Your task to perform on an android device: open app "ColorNote Notepad Notes" (install if not already installed) and go to login screen Image 0: 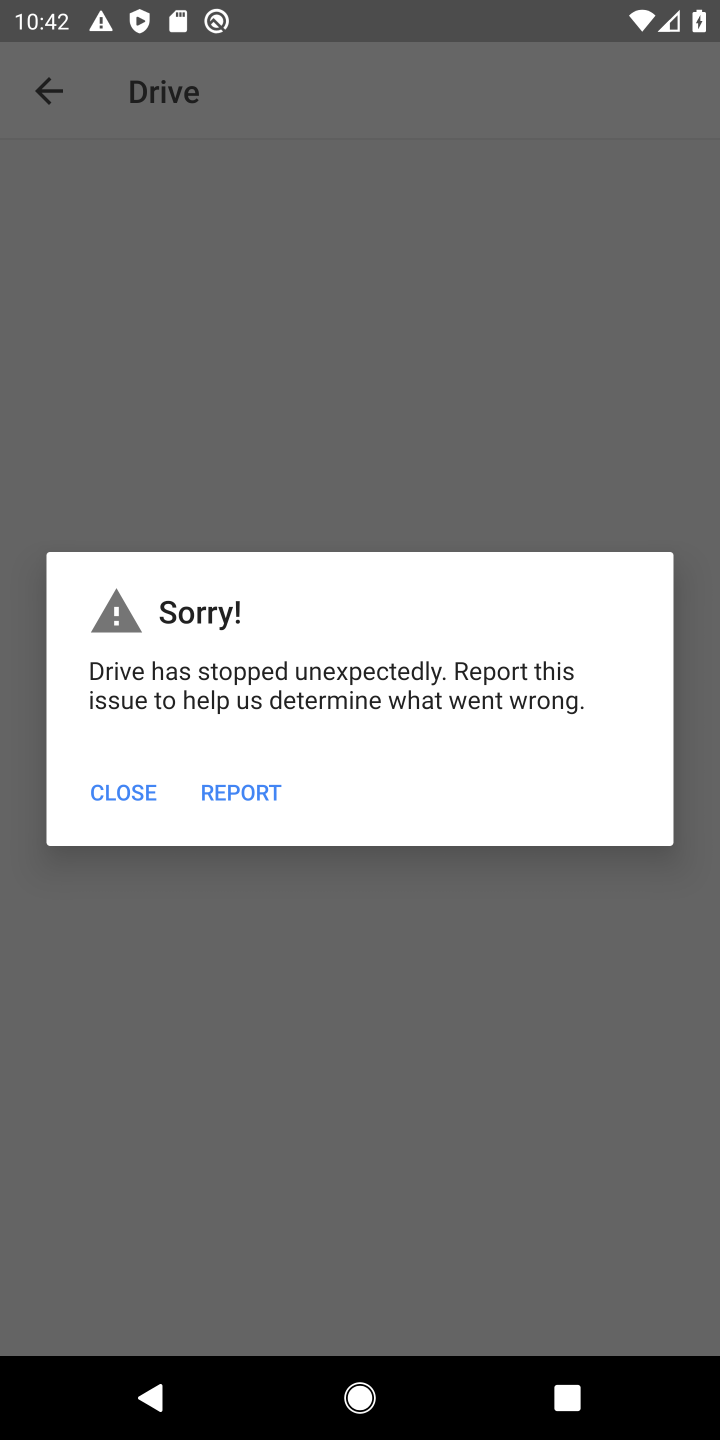
Step 0: press home button
Your task to perform on an android device: open app "ColorNote Notepad Notes" (install if not already installed) and go to login screen Image 1: 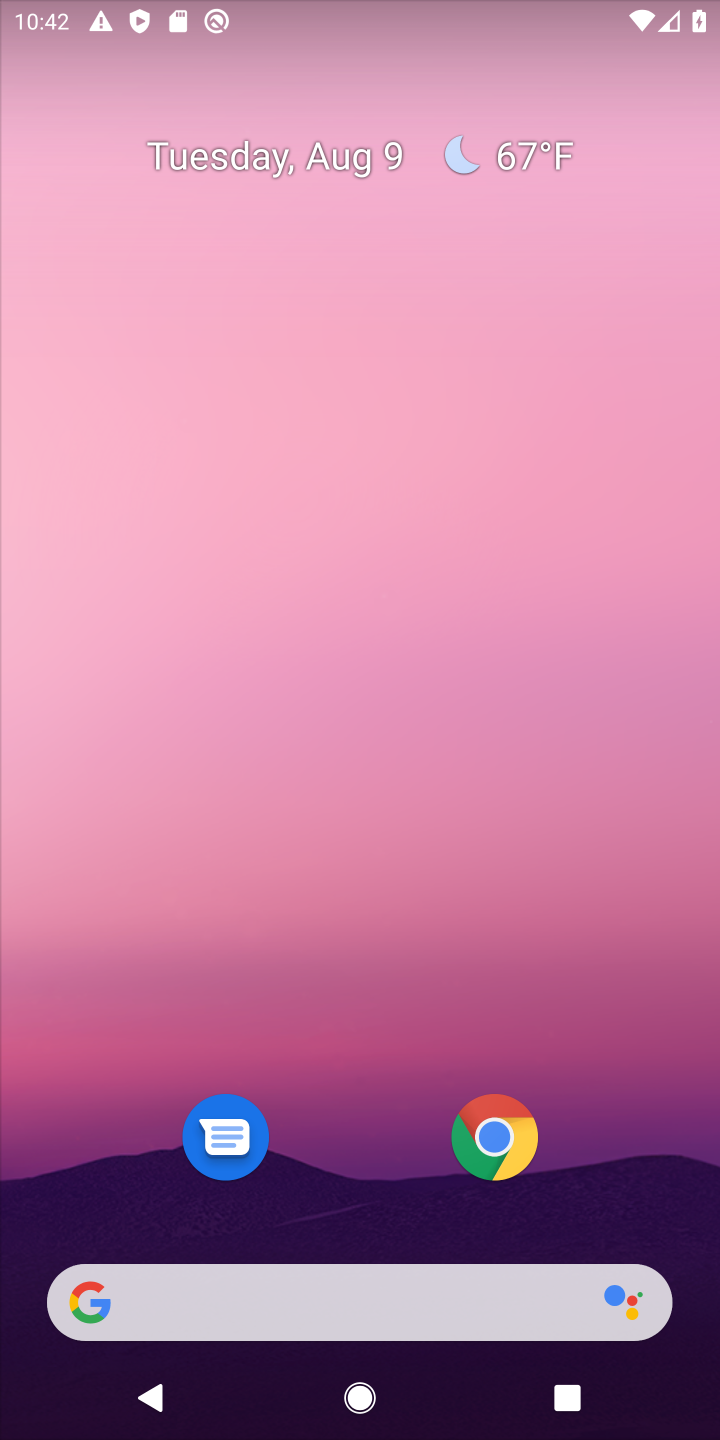
Step 1: drag from (654, 1225) to (421, 48)
Your task to perform on an android device: open app "ColorNote Notepad Notes" (install if not already installed) and go to login screen Image 2: 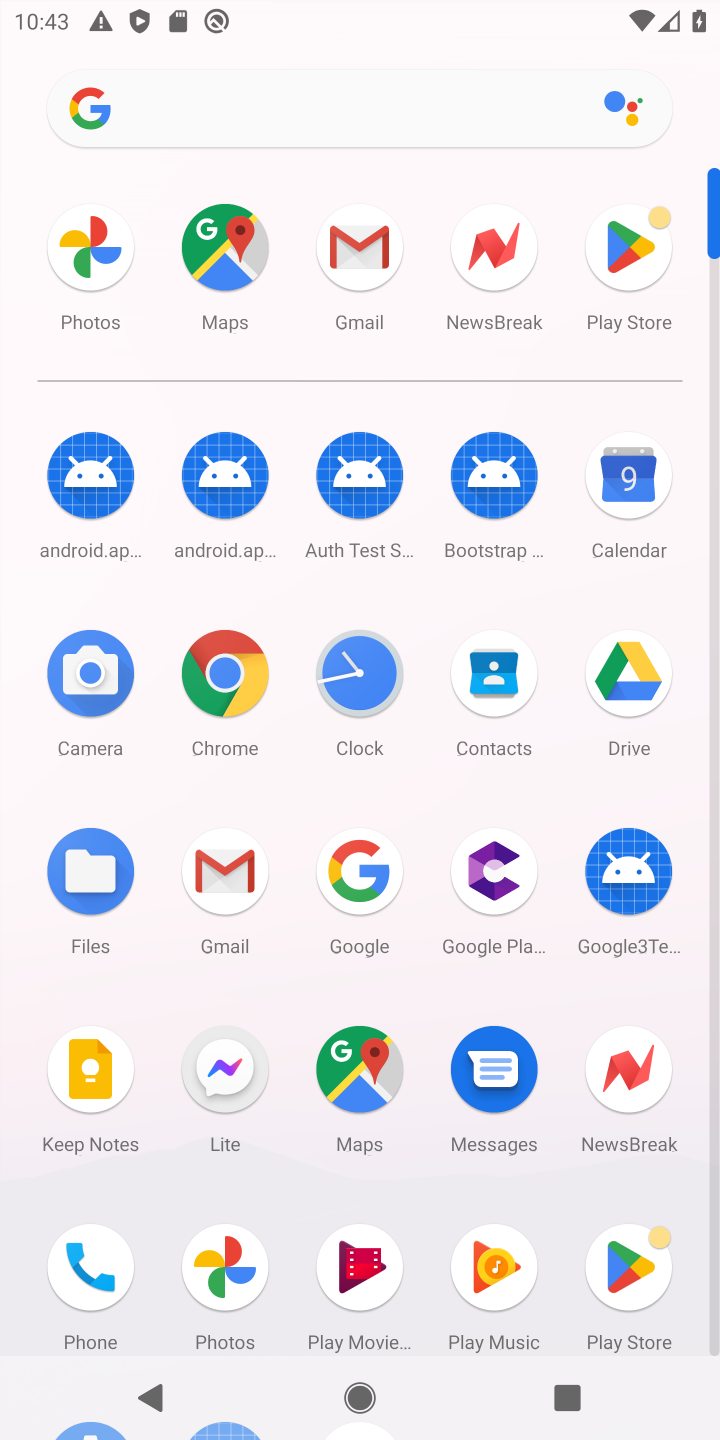
Step 2: click (621, 269)
Your task to perform on an android device: open app "ColorNote Notepad Notes" (install if not already installed) and go to login screen Image 3: 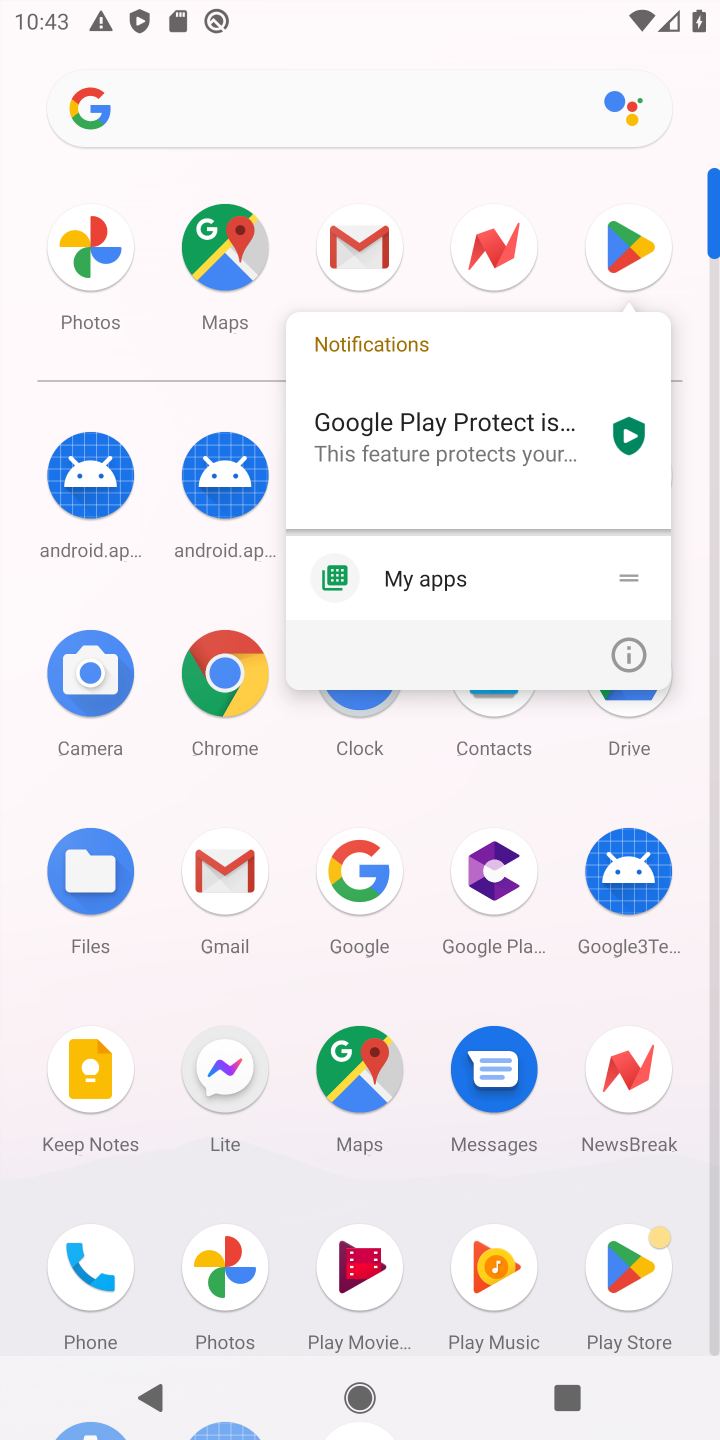
Step 3: click (623, 271)
Your task to perform on an android device: open app "ColorNote Notepad Notes" (install if not already installed) and go to login screen Image 4: 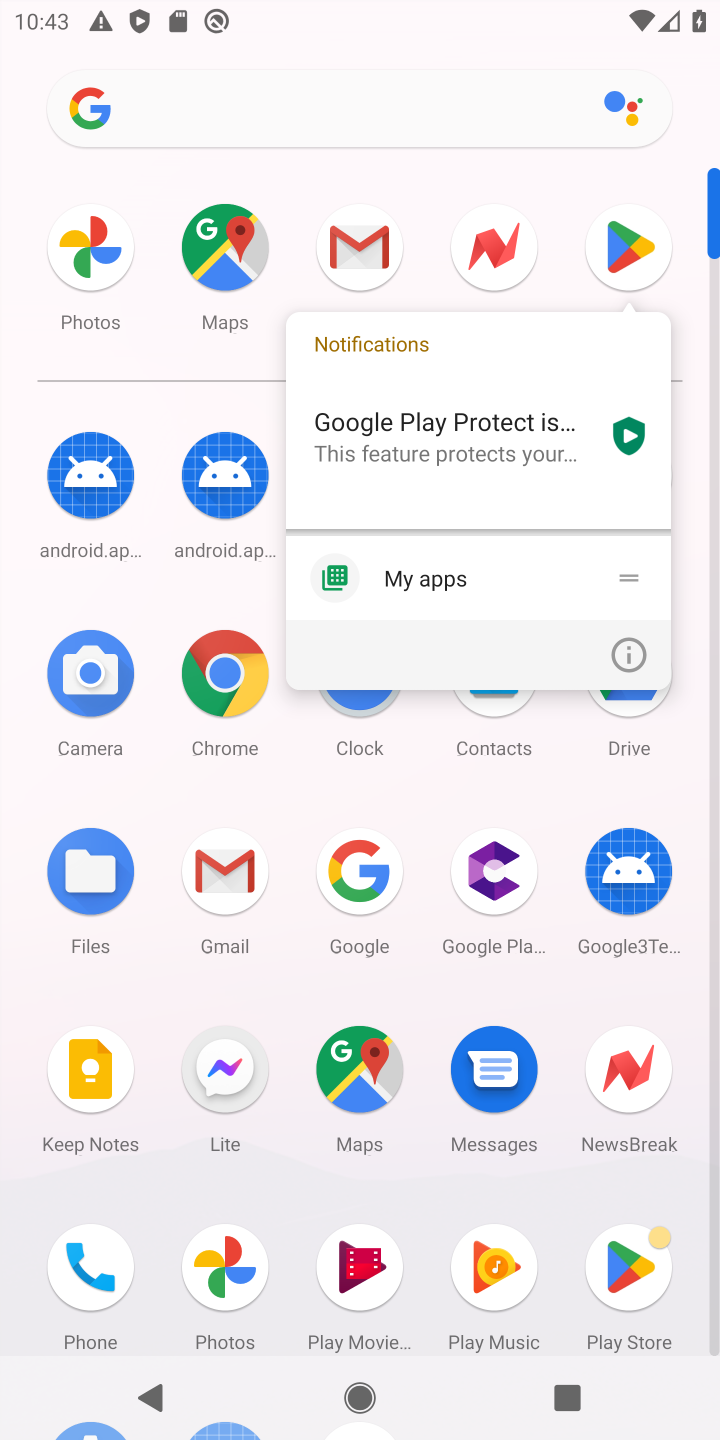
Step 4: click (623, 272)
Your task to perform on an android device: open app "ColorNote Notepad Notes" (install if not already installed) and go to login screen Image 5: 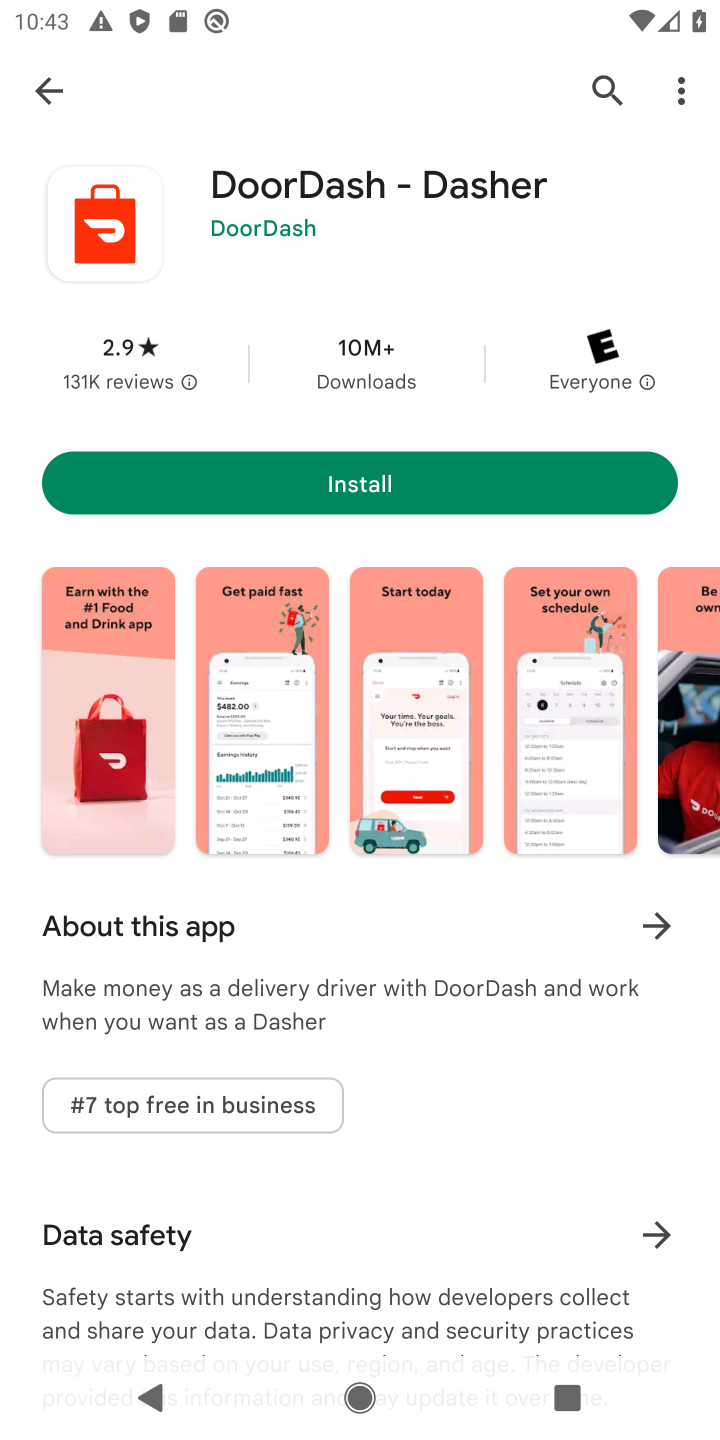
Step 5: press back button
Your task to perform on an android device: open app "ColorNote Notepad Notes" (install if not already installed) and go to login screen Image 6: 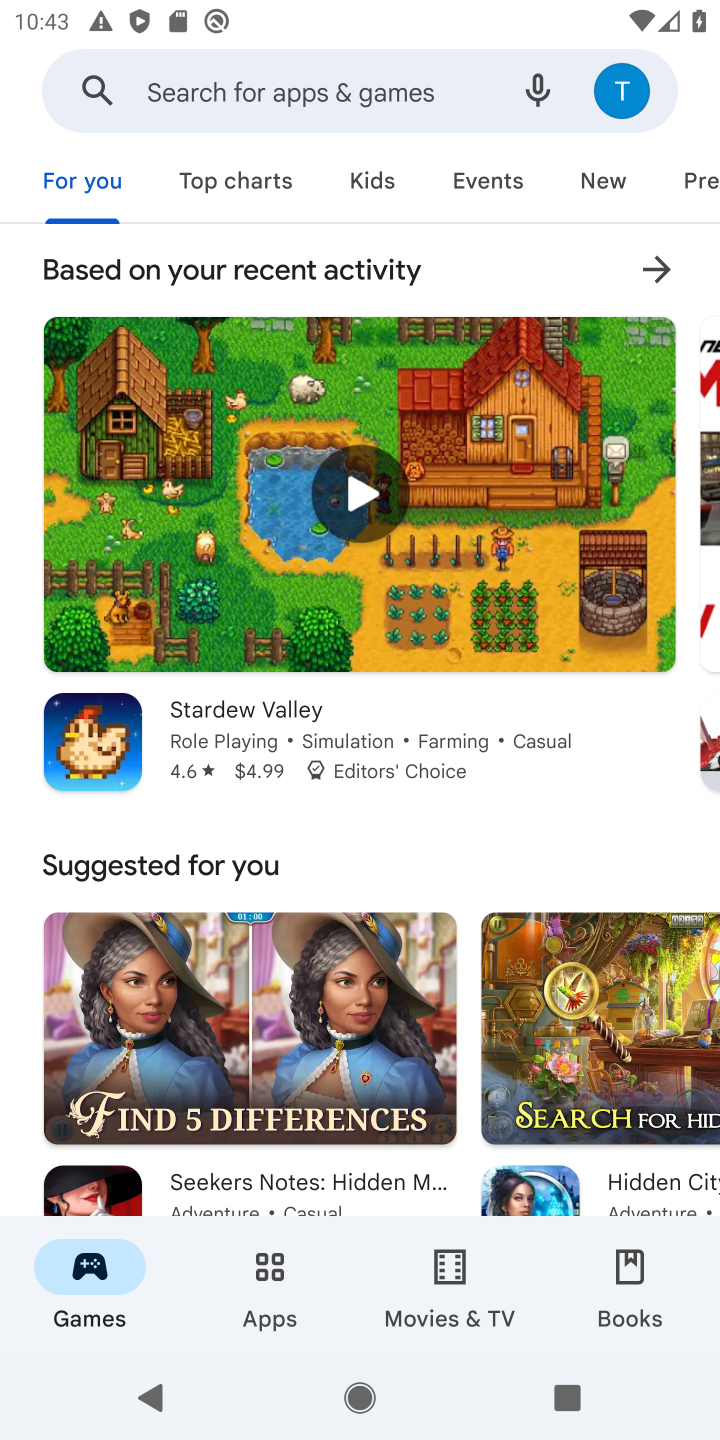
Step 6: click (244, 88)
Your task to perform on an android device: open app "ColorNote Notepad Notes" (install if not already installed) and go to login screen Image 7: 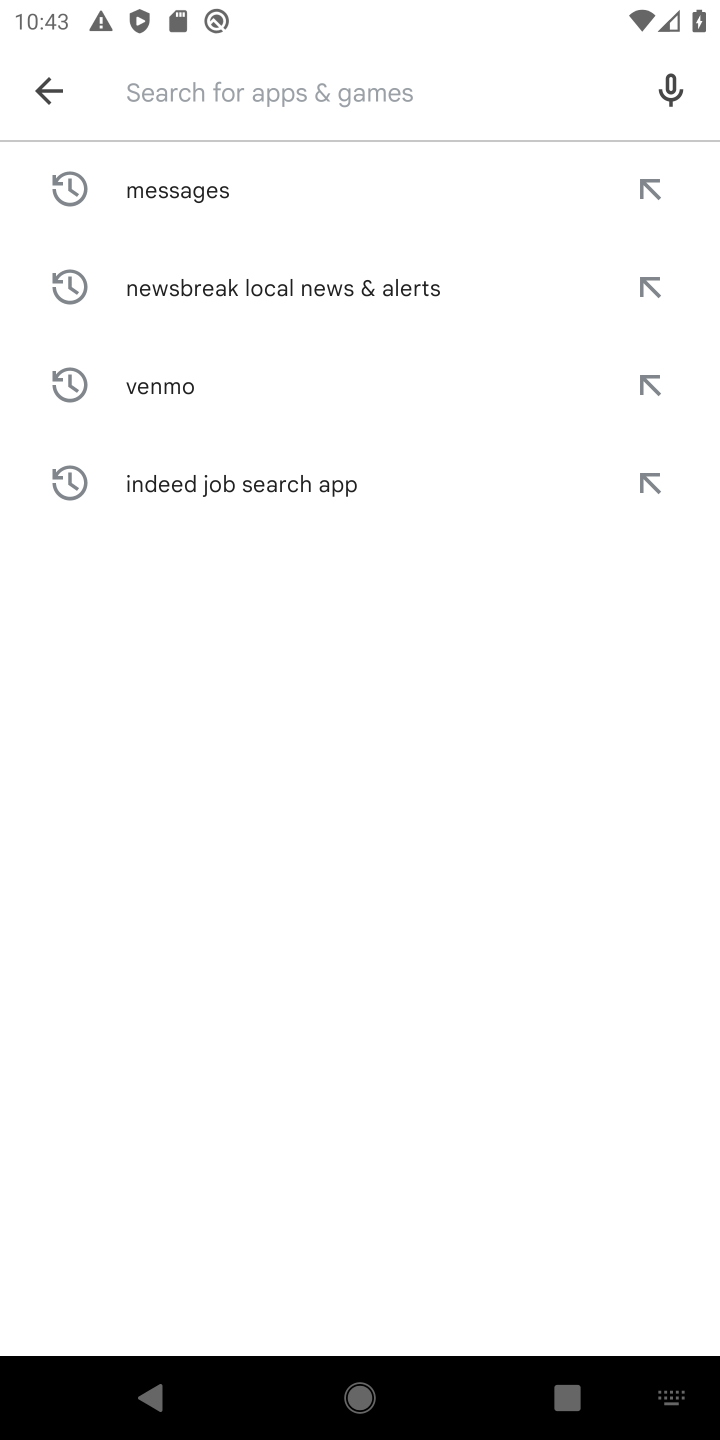
Step 7: type "ColorNote Notepad Notes"
Your task to perform on an android device: open app "ColorNote Notepad Notes" (install if not already installed) and go to login screen Image 8: 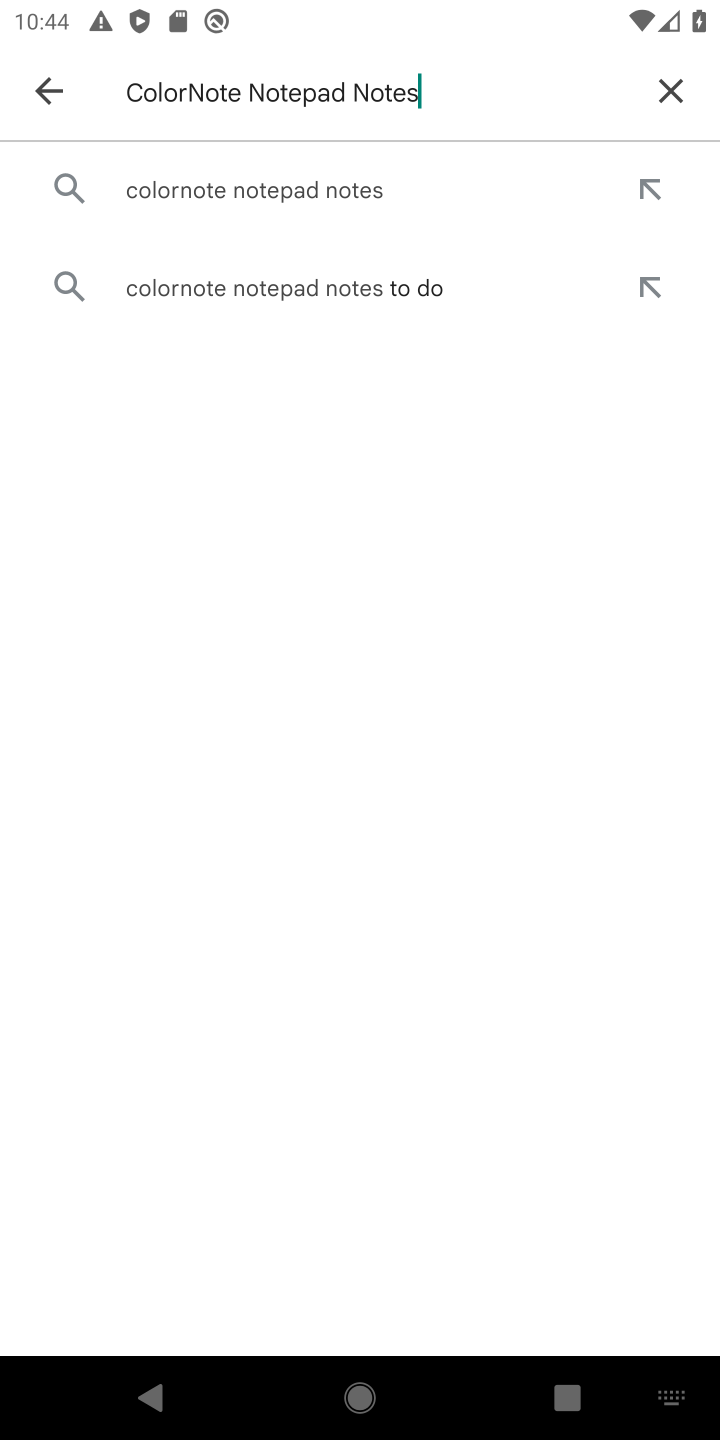
Step 8: click (314, 191)
Your task to perform on an android device: open app "ColorNote Notepad Notes" (install if not already installed) and go to login screen Image 9: 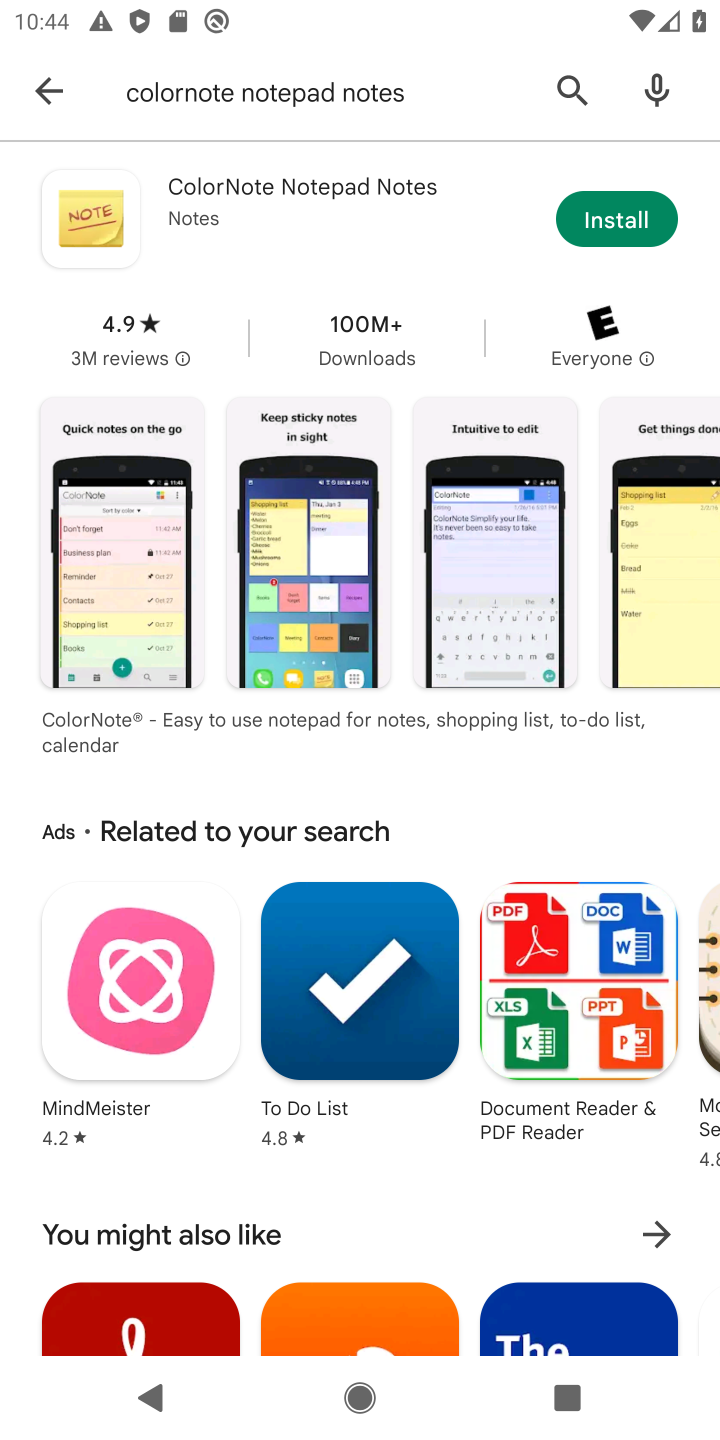
Step 9: task complete